Your task to perform on an android device: Search for pizza restaurants on Maps Image 0: 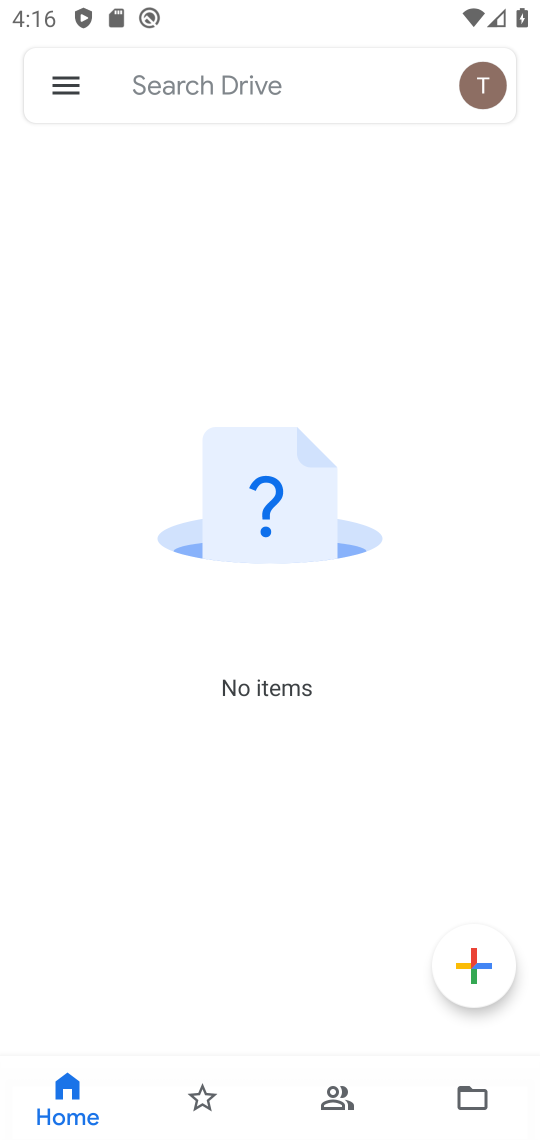
Step 0: press home button
Your task to perform on an android device: Search for pizza restaurants on Maps Image 1: 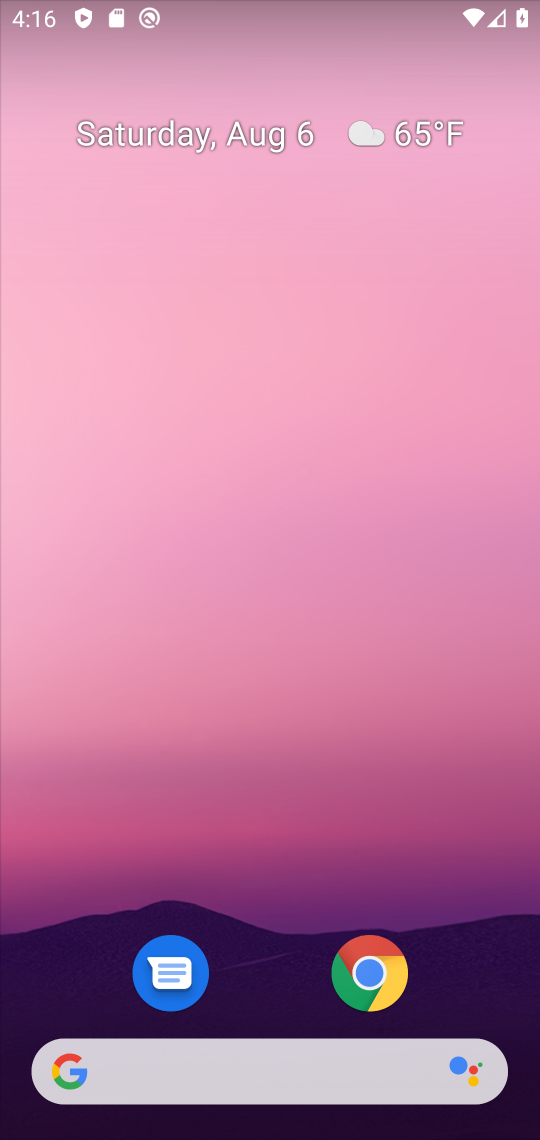
Step 1: drag from (265, 964) to (25, 838)
Your task to perform on an android device: Search for pizza restaurants on Maps Image 2: 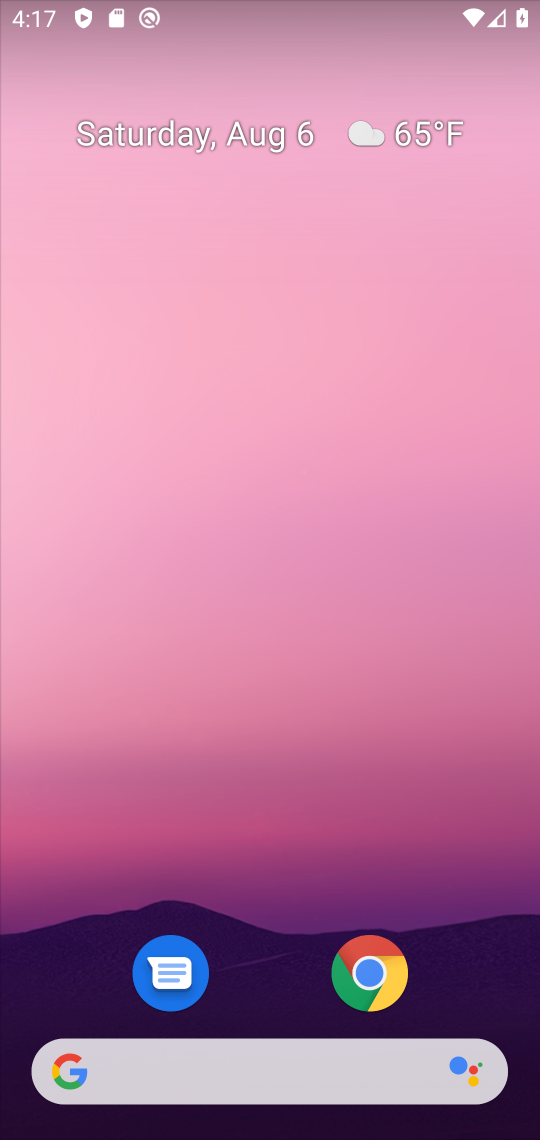
Step 2: drag from (257, 950) to (278, 58)
Your task to perform on an android device: Search for pizza restaurants on Maps Image 3: 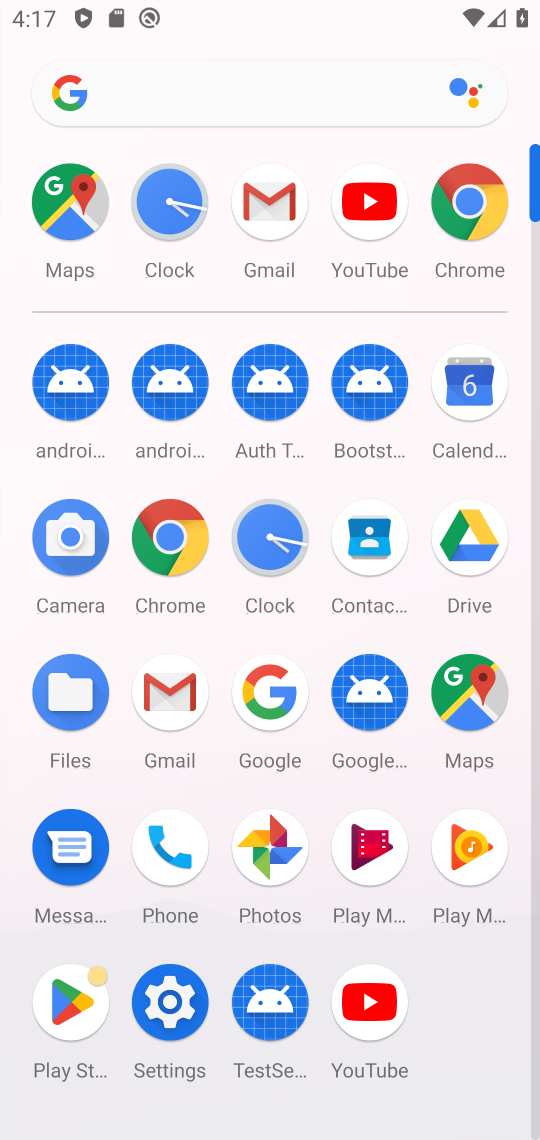
Step 3: click (477, 689)
Your task to perform on an android device: Search for pizza restaurants on Maps Image 4: 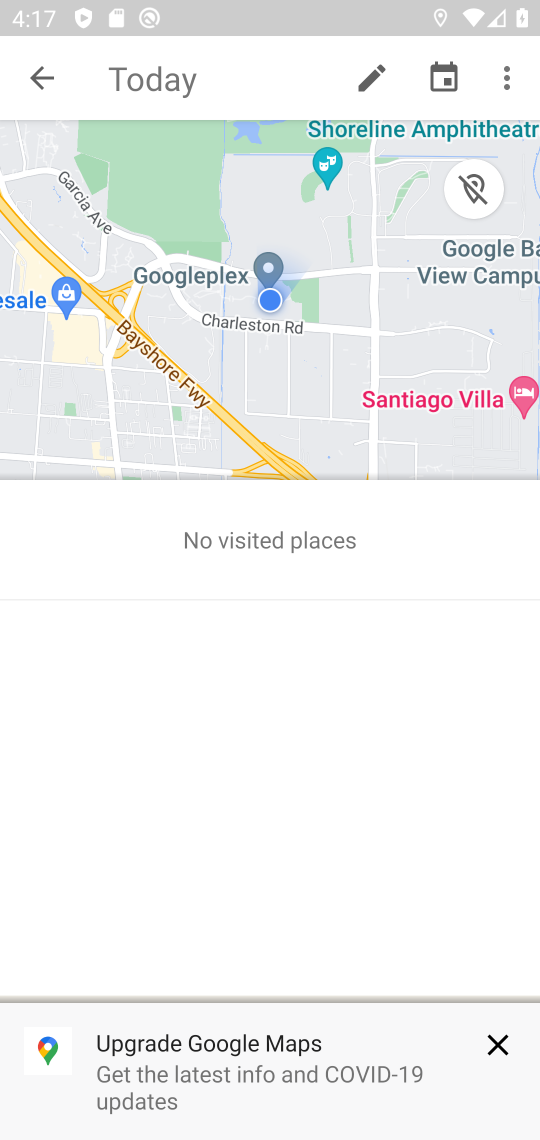
Step 4: click (45, 66)
Your task to perform on an android device: Search for pizza restaurants on Maps Image 5: 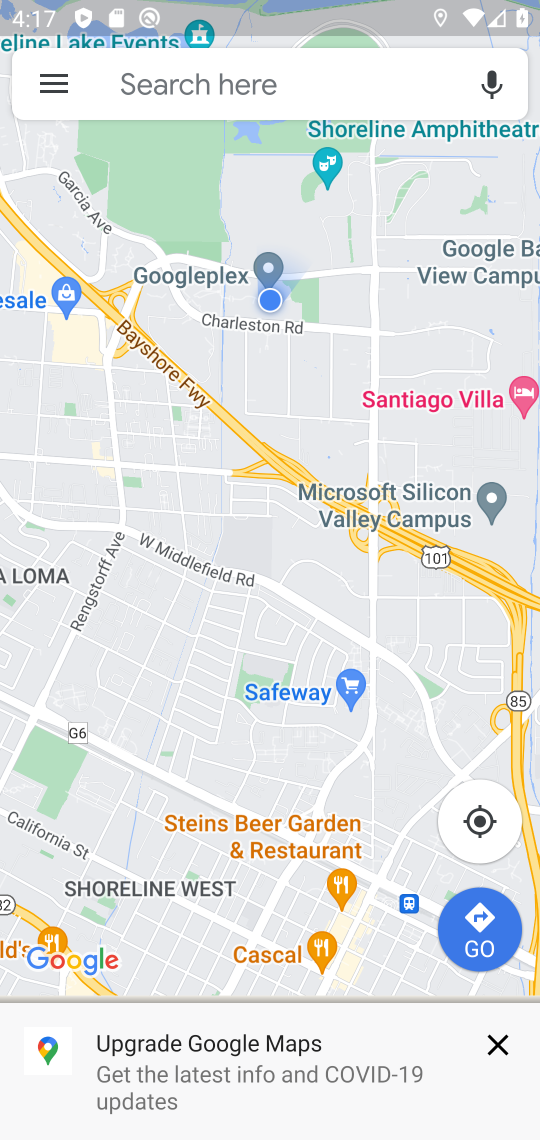
Step 5: click (265, 77)
Your task to perform on an android device: Search for pizza restaurants on Maps Image 6: 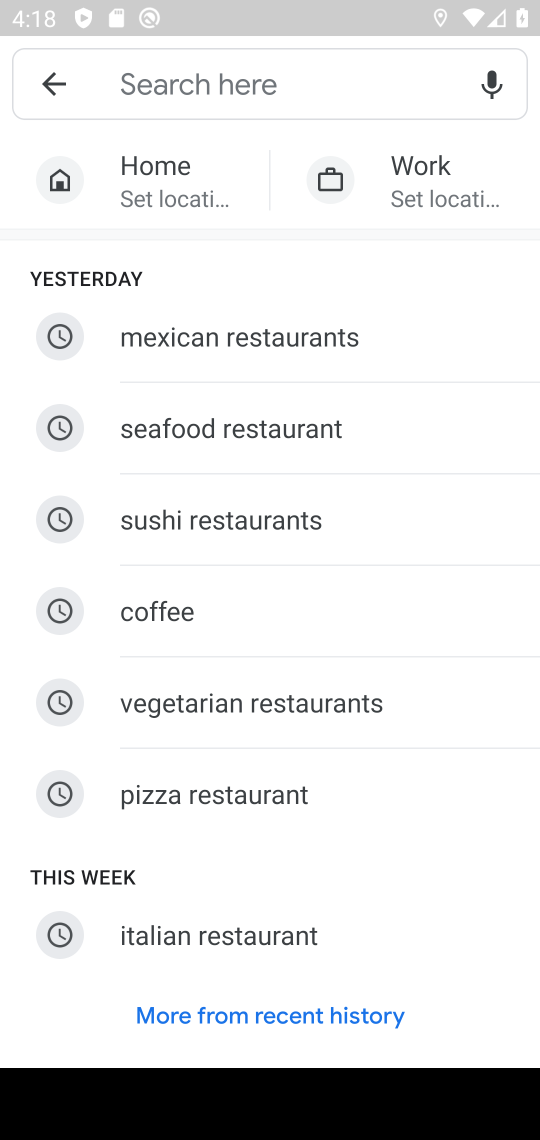
Step 6: type "pizza restaurants"
Your task to perform on an android device: Search for pizza restaurants on Maps Image 7: 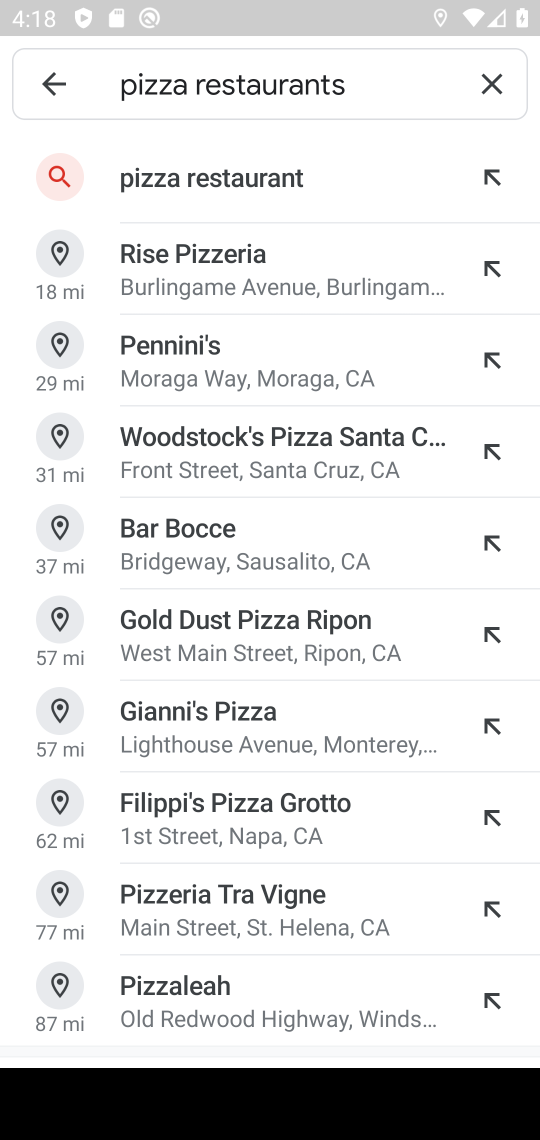
Step 7: press enter
Your task to perform on an android device: Search for pizza restaurants on Maps Image 8: 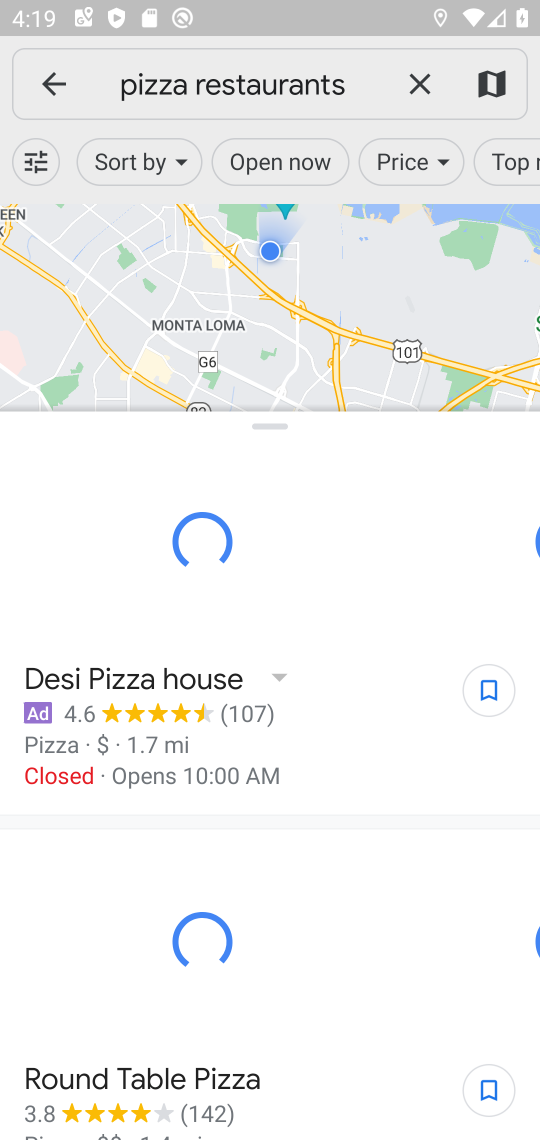
Step 8: task complete